Your task to perform on an android device: When is my next appointment? Image 0: 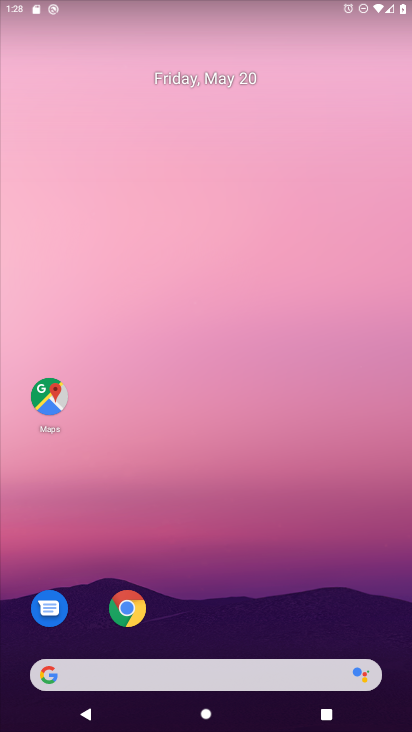
Step 0: press home button
Your task to perform on an android device: When is my next appointment? Image 1: 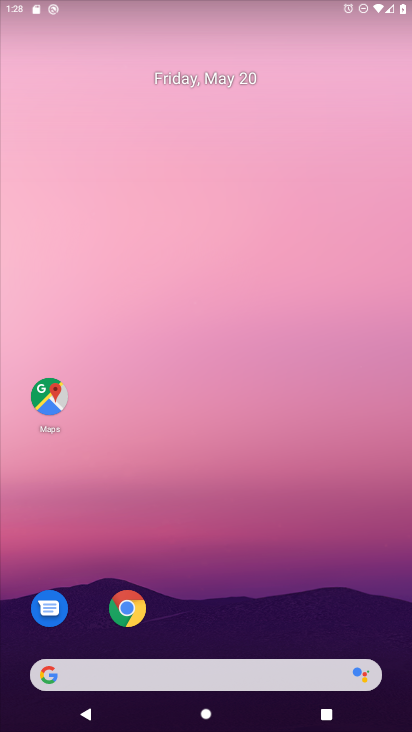
Step 1: drag from (279, 615) to (282, 38)
Your task to perform on an android device: When is my next appointment? Image 2: 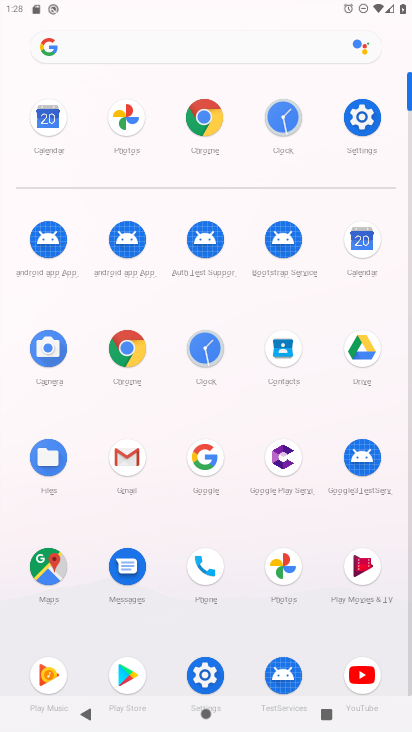
Step 2: click (357, 235)
Your task to perform on an android device: When is my next appointment? Image 3: 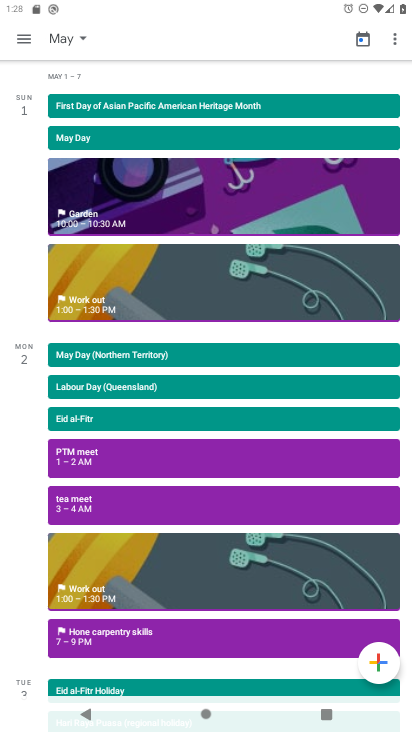
Step 3: task complete